Your task to perform on an android device: turn smart compose on in the gmail app Image 0: 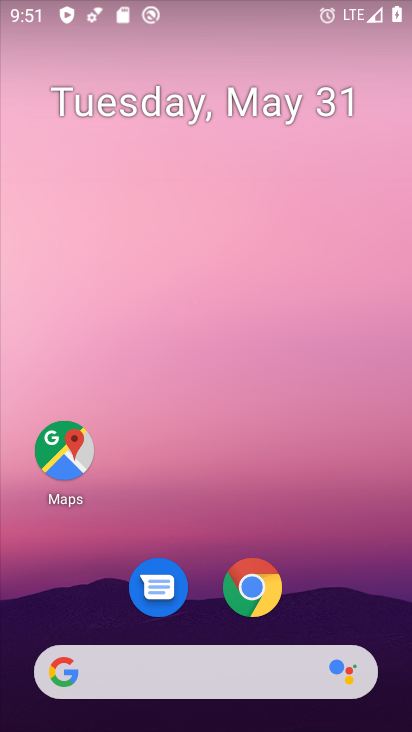
Step 0: drag from (367, 617) to (365, 221)
Your task to perform on an android device: turn smart compose on in the gmail app Image 1: 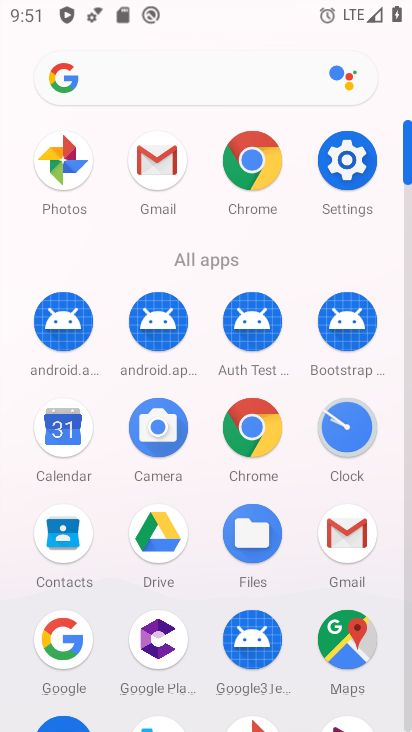
Step 1: click (332, 546)
Your task to perform on an android device: turn smart compose on in the gmail app Image 2: 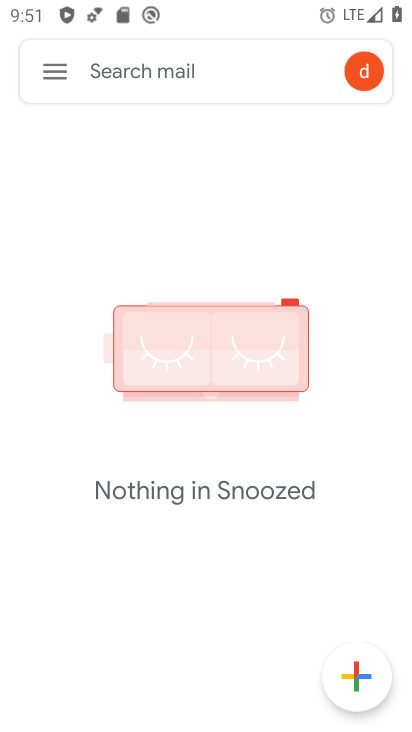
Step 2: click (50, 68)
Your task to perform on an android device: turn smart compose on in the gmail app Image 3: 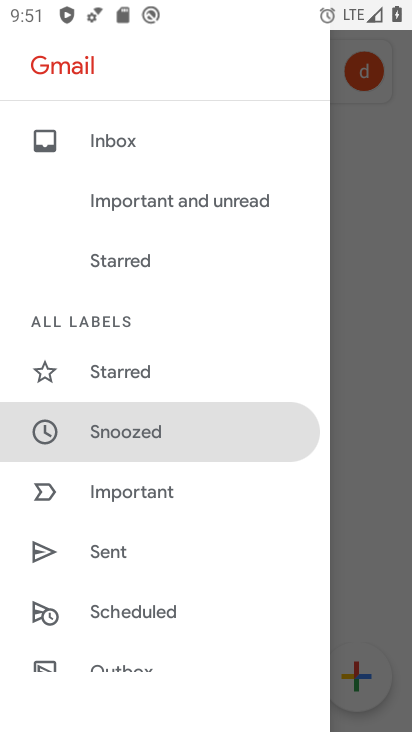
Step 3: drag from (278, 256) to (285, 405)
Your task to perform on an android device: turn smart compose on in the gmail app Image 4: 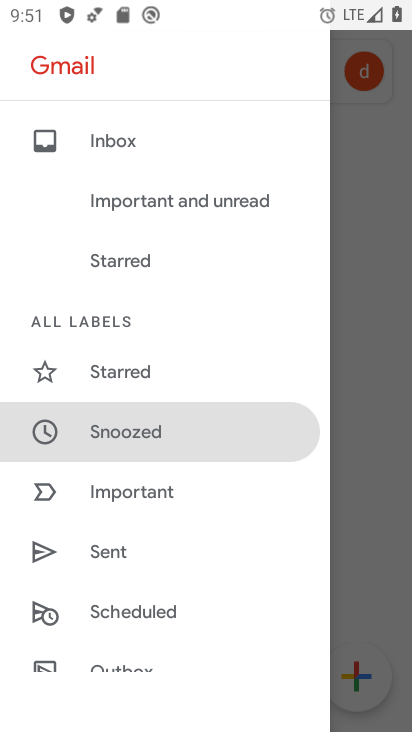
Step 4: drag from (258, 510) to (279, 369)
Your task to perform on an android device: turn smart compose on in the gmail app Image 5: 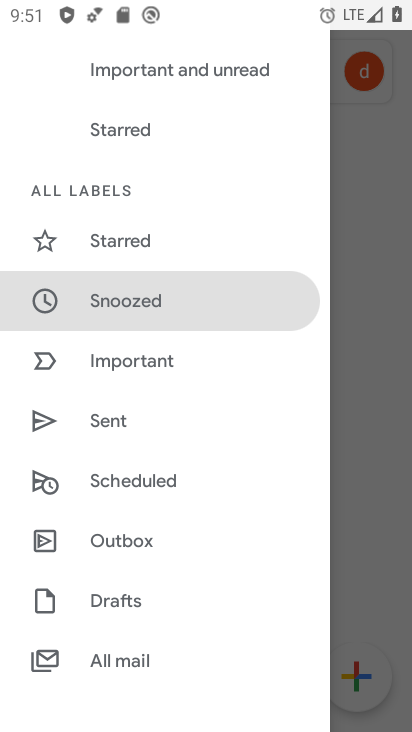
Step 5: drag from (280, 487) to (282, 395)
Your task to perform on an android device: turn smart compose on in the gmail app Image 6: 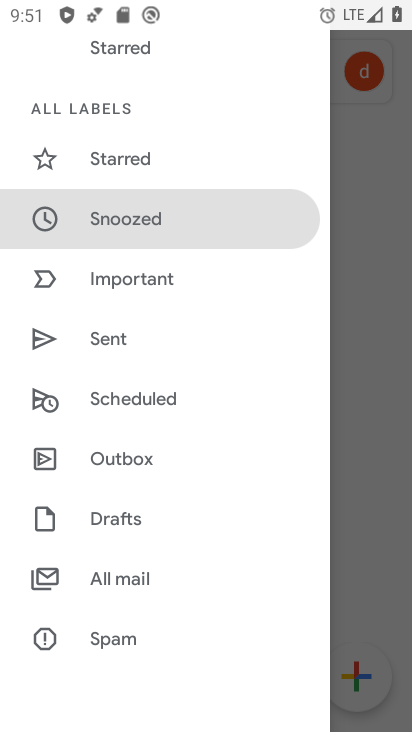
Step 6: drag from (280, 488) to (274, 429)
Your task to perform on an android device: turn smart compose on in the gmail app Image 7: 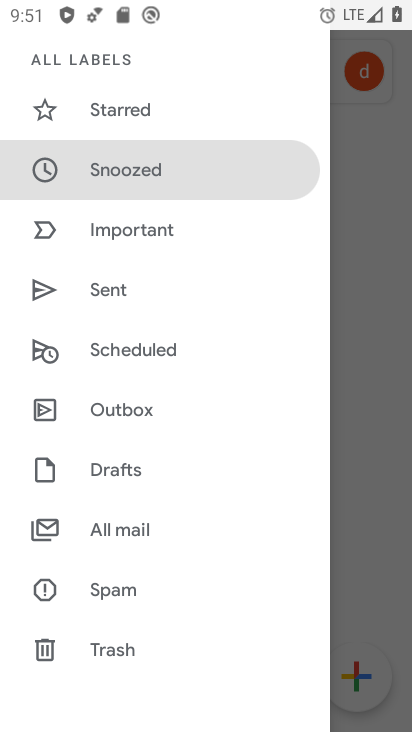
Step 7: drag from (280, 457) to (277, 360)
Your task to perform on an android device: turn smart compose on in the gmail app Image 8: 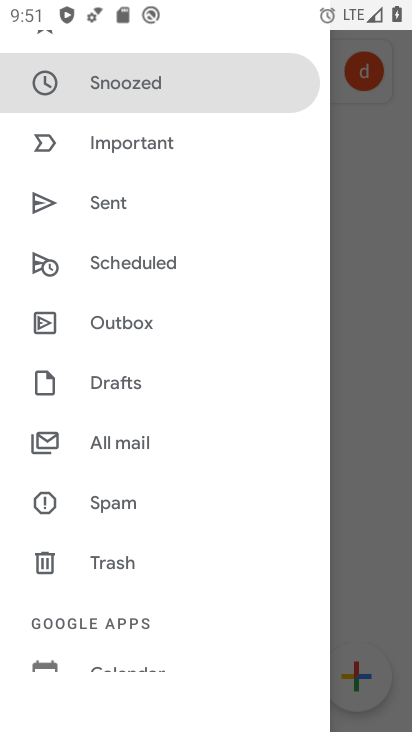
Step 8: drag from (272, 468) to (260, 335)
Your task to perform on an android device: turn smart compose on in the gmail app Image 9: 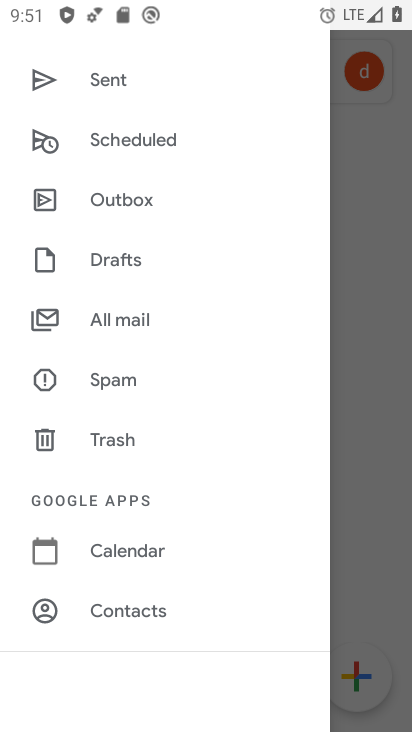
Step 9: drag from (257, 498) to (271, 306)
Your task to perform on an android device: turn smart compose on in the gmail app Image 10: 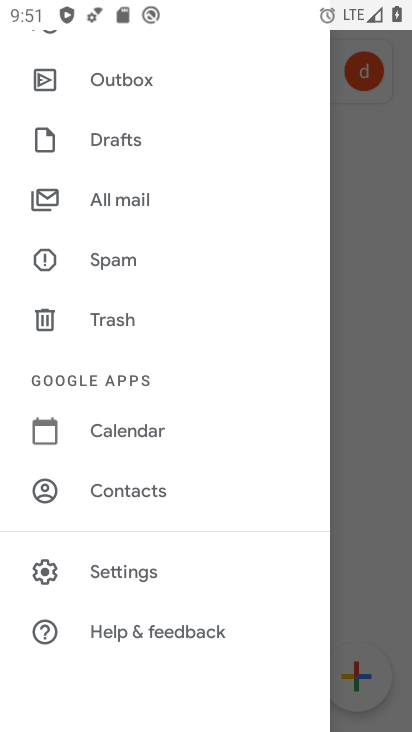
Step 10: drag from (263, 489) to (261, 352)
Your task to perform on an android device: turn smart compose on in the gmail app Image 11: 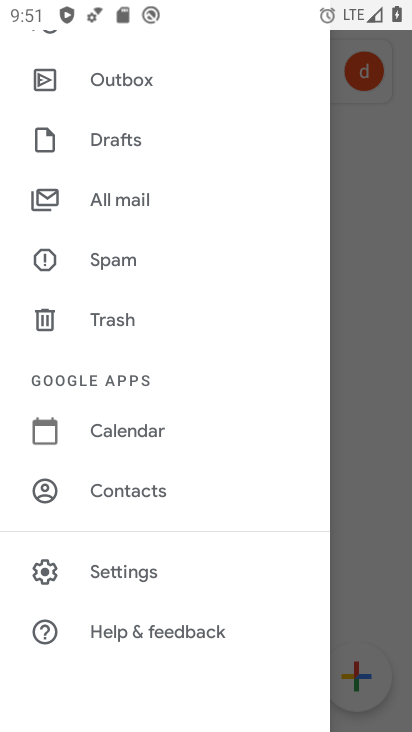
Step 11: click (154, 579)
Your task to perform on an android device: turn smart compose on in the gmail app Image 12: 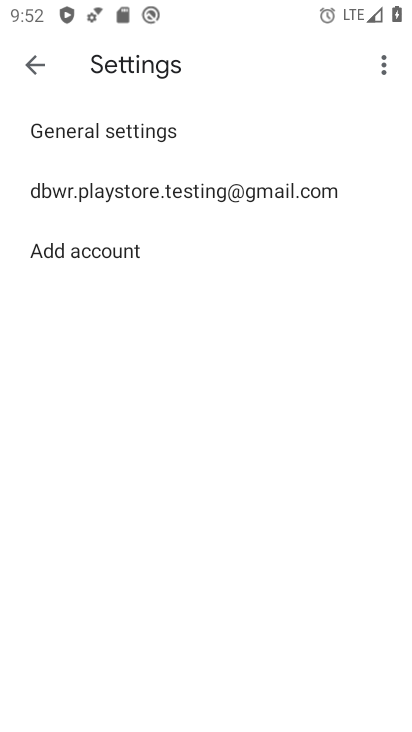
Step 12: click (211, 197)
Your task to perform on an android device: turn smart compose on in the gmail app Image 13: 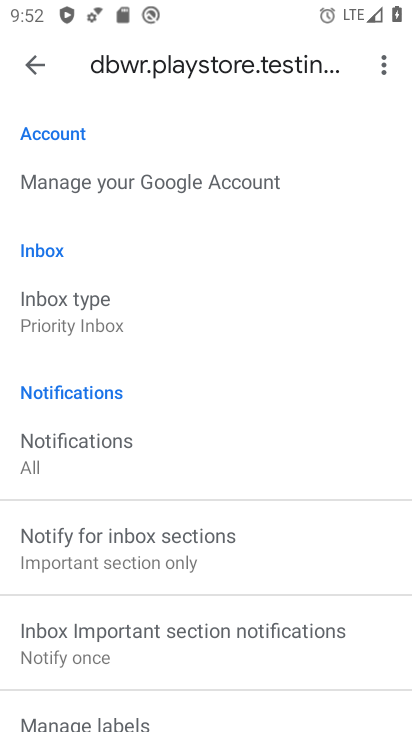
Step 13: task complete